Your task to perform on an android device: Open Google Chrome and open the bookmarks view Image 0: 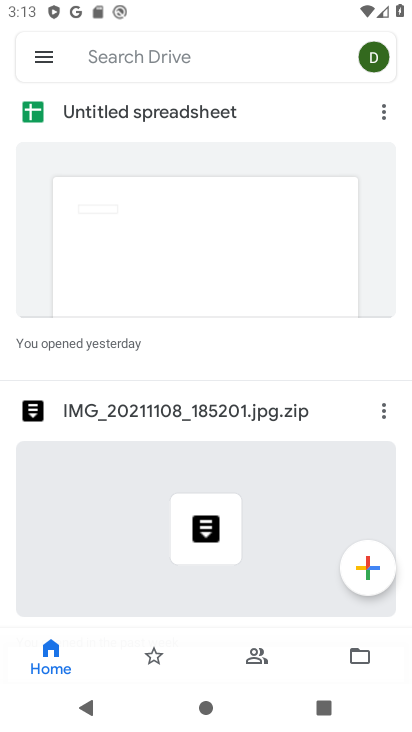
Step 0: press home button
Your task to perform on an android device: Open Google Chrome and open the bookmarks view Image 1: 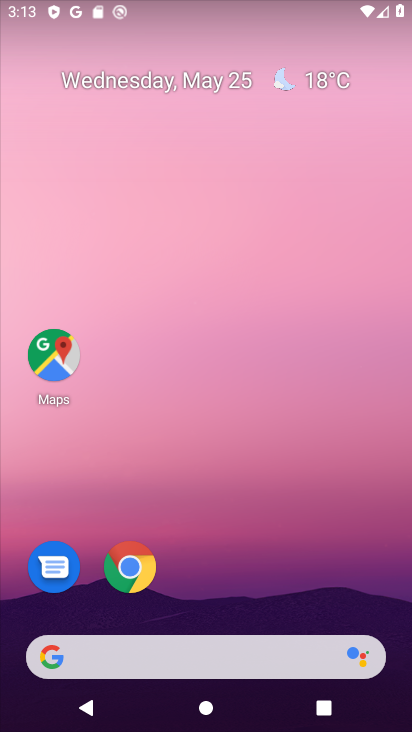
Step 1: drag from (372, 589) to (364, 162)
Your task to perform on an android device: Open Google Chrome and open the bookmarks view Image 2: 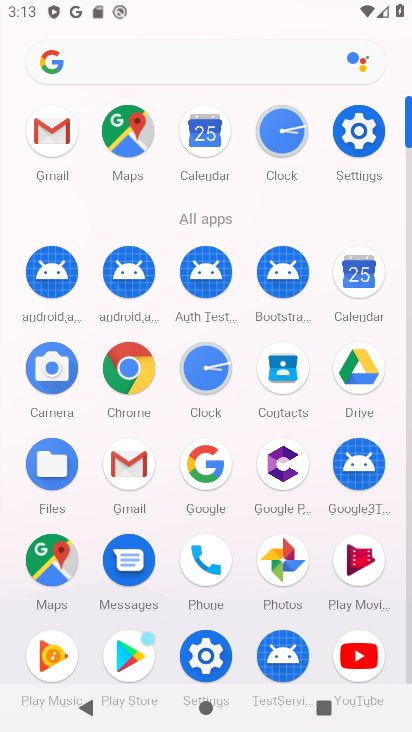
Step 2: click (144, 372)
Your task to perform on an android device: Open Google Chrome and open the bookmarks view Image 3: 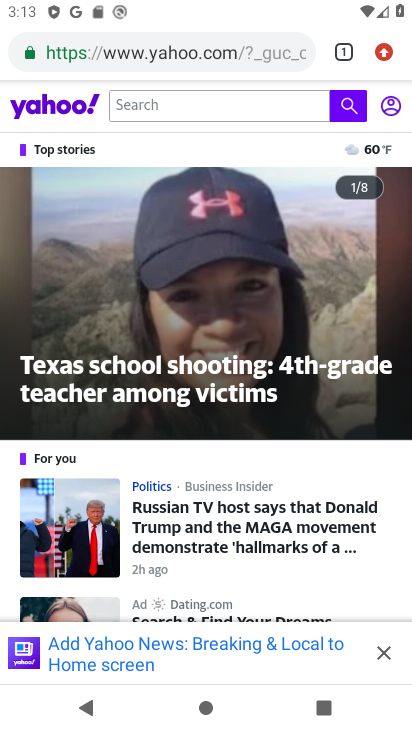
Step 3: click (386, 54)
Your task to perform on an android device: Open Google Chrome and open the bookmarks view Image 4: 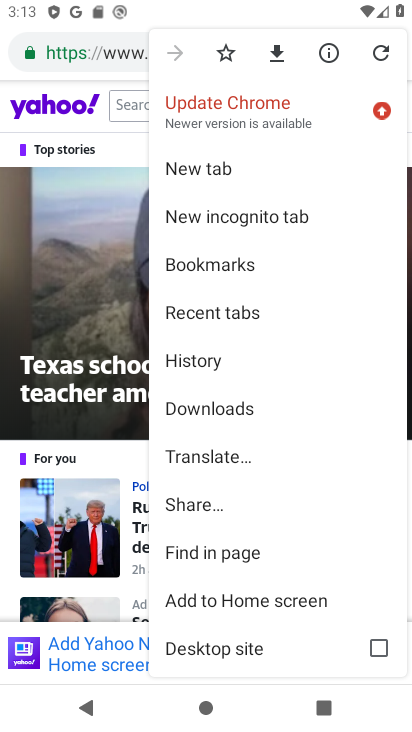
Step 4: click (248, 268)
Your task to perform on an android device: Open Google Chrome and open the bookmarks view Image 5: 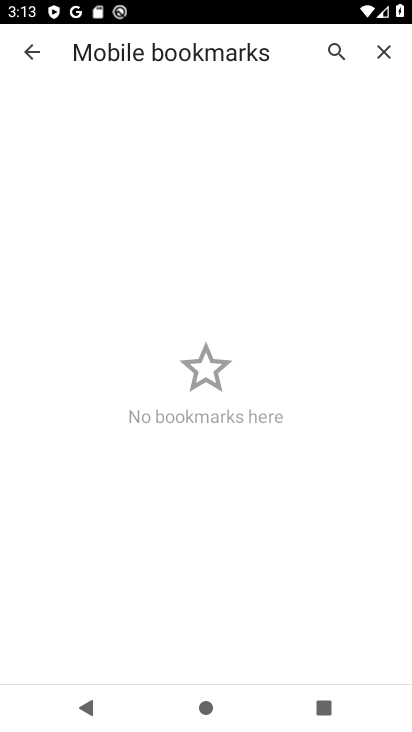
Step 5: task complete